Your task to perform on an android device: Open battery settings Image 0: 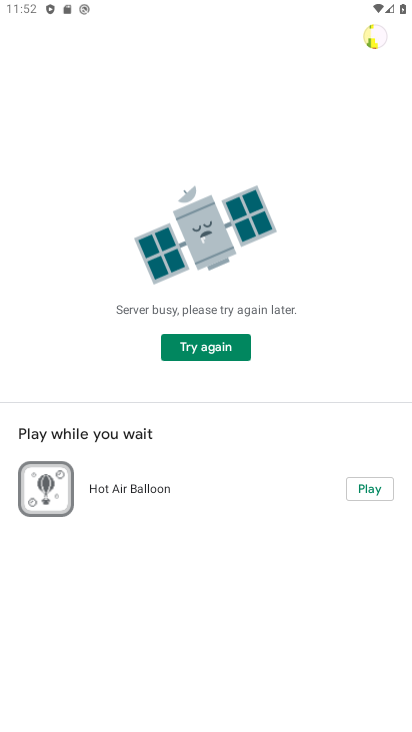
Step 0: press home button
Your task to perform on an android device: Open battery settings Image 1: 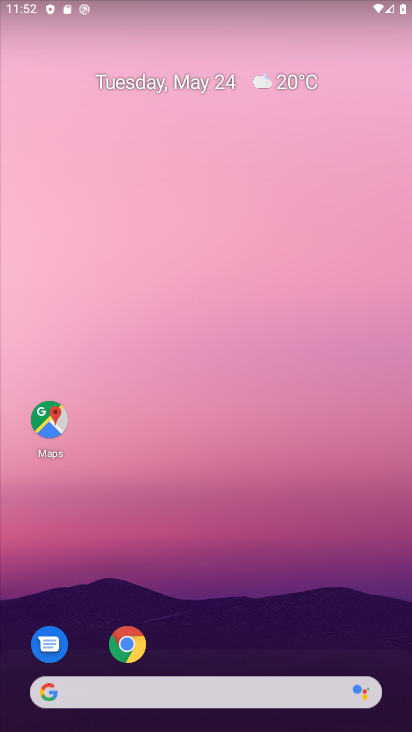
Step 1: drag from (314, 418) to (312, 7)
Your task to perform on an android device: Open battery settings Image 2: 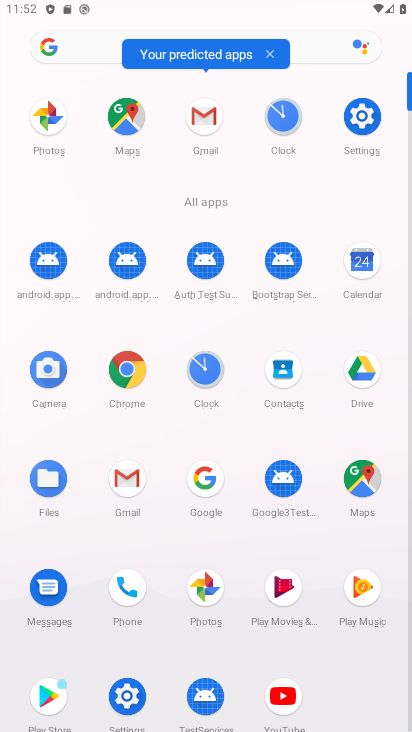
Step 2: click (128, 692)
Your task to perform on an android device: Open battery settings Image 3: 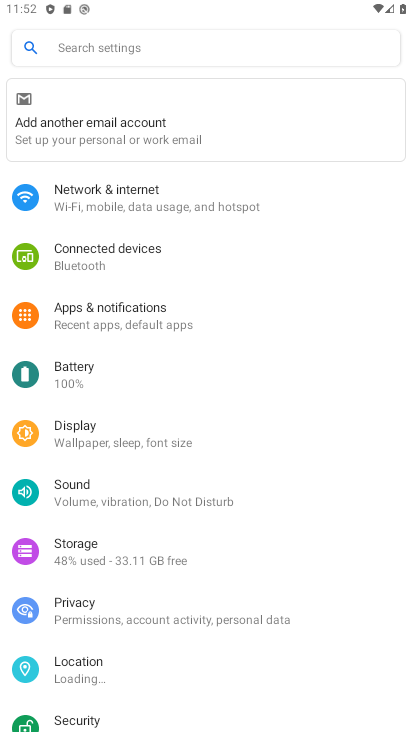
Step 3: click (78, 382)
Your task to perform on an android device: Open battery settings Image 4: 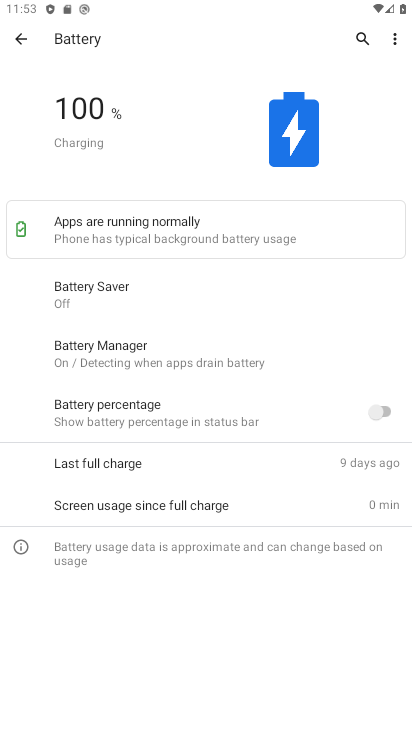
Step 4: task complete